Your task to perform on an android device: Open settings on Google Maps Image 0: 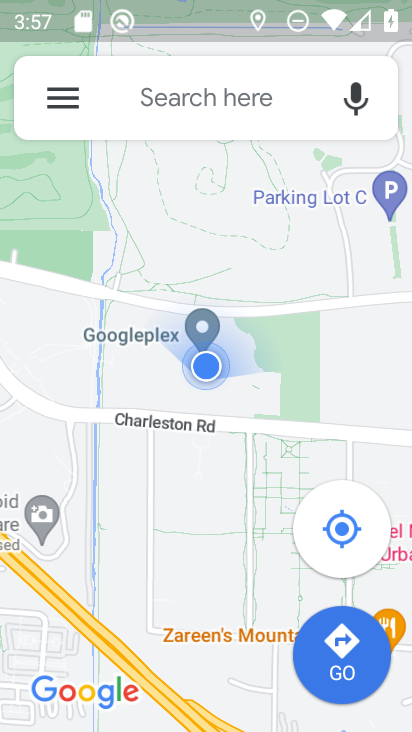
Step 0: click (64, 86)
Your task to perform on an android device: Open settings on Google Maps Image 1: 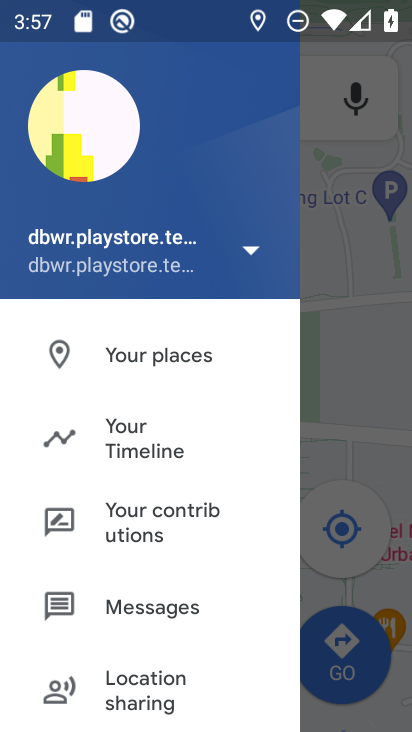
Step 1: drag from (160, 666) to (170, 388)
Your task to perform on an android device: Open settings on Google Maps Image 2: 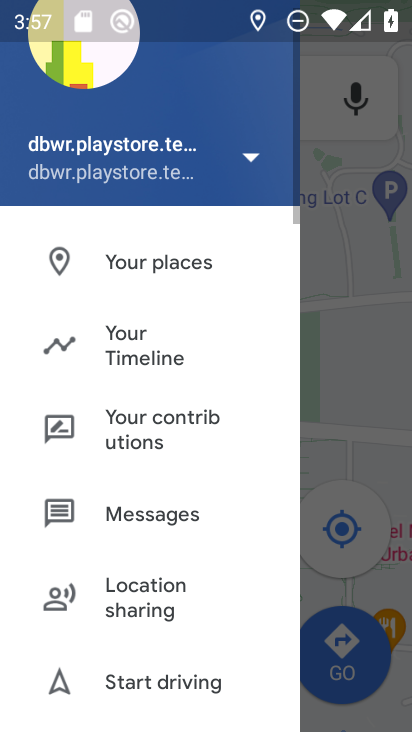
Step 2: drag from (185, 171) to (186, 122)
Your task to perform on an android device: Open settings on Google Maps Image 3: 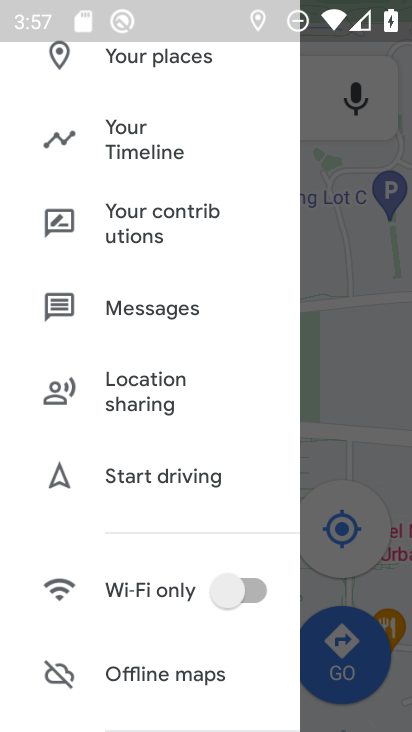
Step 3: drag from (137, 674) to (144, 435)
Your task to perform on an android device: Open settings on Google Maps Image 4: 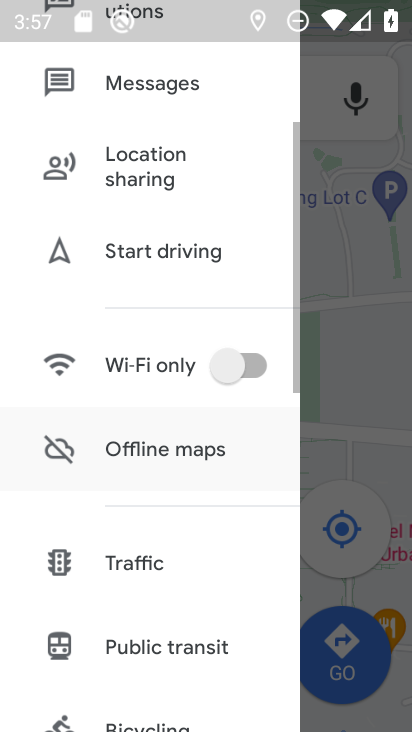
Step 4: drag from (151, 164) to (151, 101)
Your task to perform on an android device: Open settings on Google Maps Image 5: 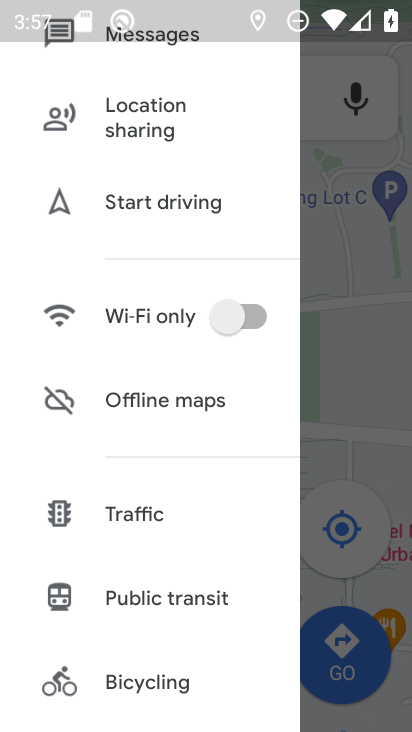
Step 5: drag from (154, 686) to (160, 141)
Your task to perform on an android device: Open settings on Google Maps Image 6: 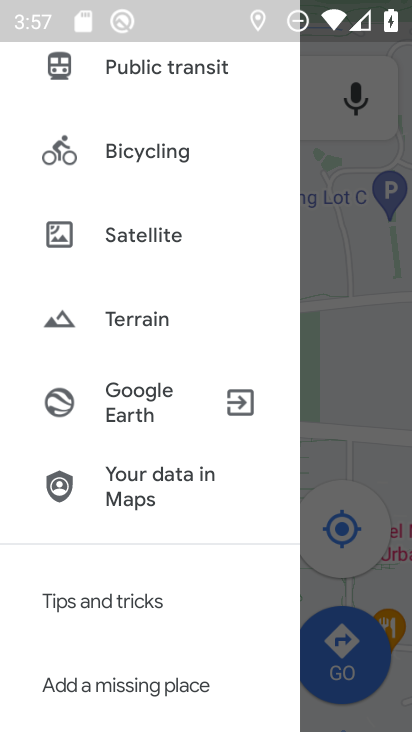
Step 6: drag from (137, 650) to (150, 103)
Your task to perform on an android device: Open settings on Google Maps Image 7: 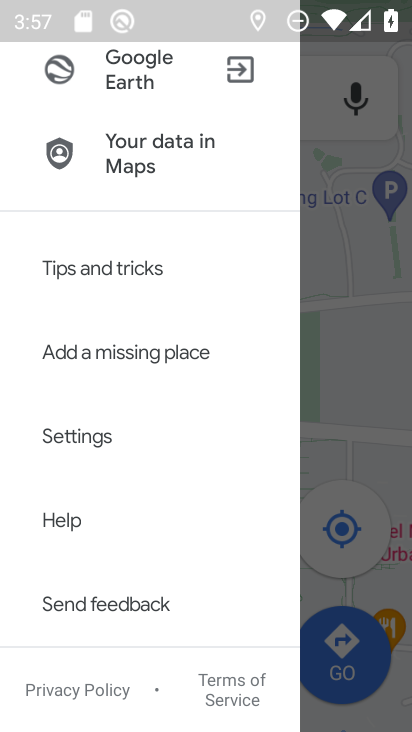
Step 7: click (127, 427)
Your task to perform on an android device: Open settings on Google Maps Image 8: 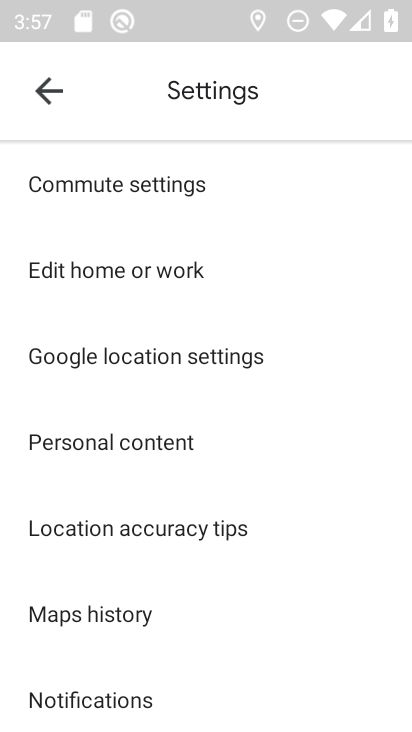
Step 8: click (169, 576)
Your task to perform on an android device: Open settings on Google Maps Image 9: 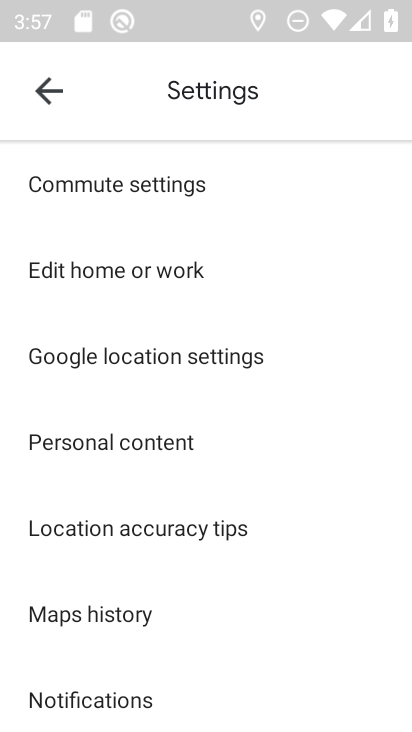
Step 9: task complete